Your task to perform on an android device: Show me popular videos on Youtube Image 0: 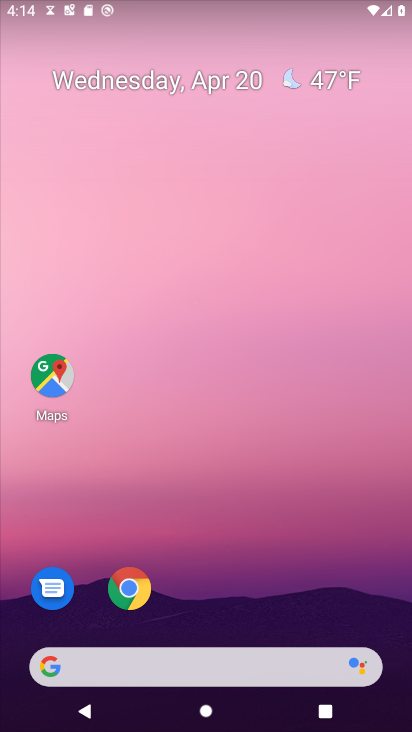
Step 0: drag from (321, 502) to (281, 189)
Your task to perform on an android device: Show me popular videos on Youtube Image 1: 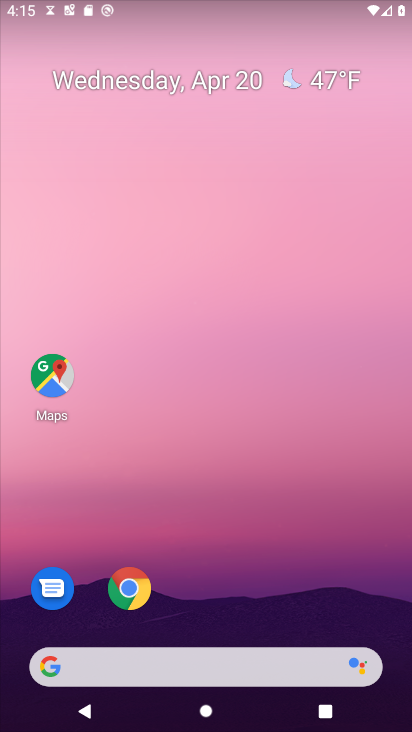
Step 1: drag from (256, 577) to (286, 57)
Your task to perform on an android device: Show me popular videos on Youtube Image 2: 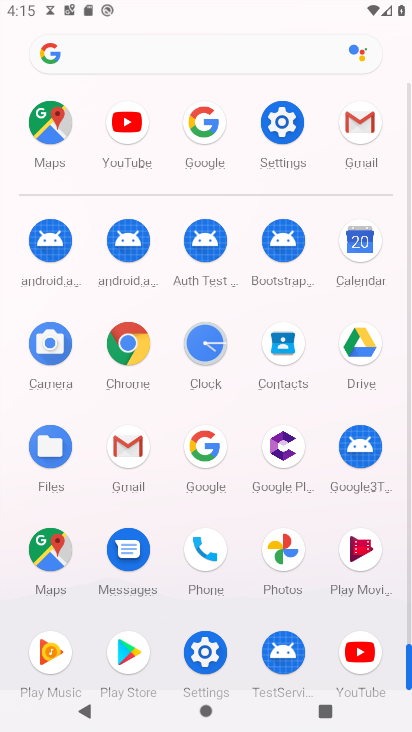
Step 2: click (361, 658)
Your task to perform on an android device: Show me popular videos on Youtube Image 3: 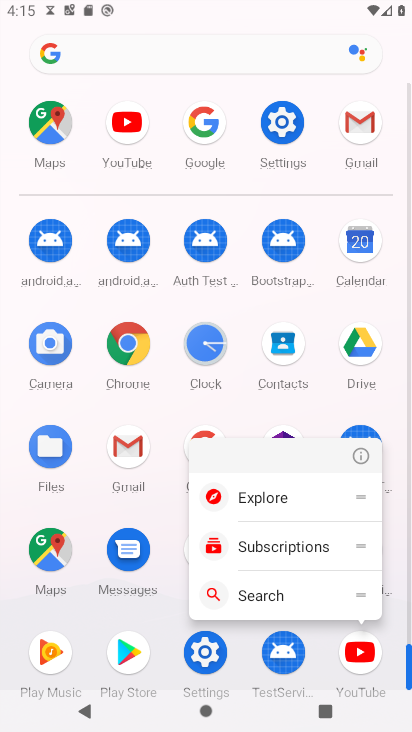
Step 3: click (362, 657)
Your task to perform on an android device: Show me popular videos on Youtube Image 4: 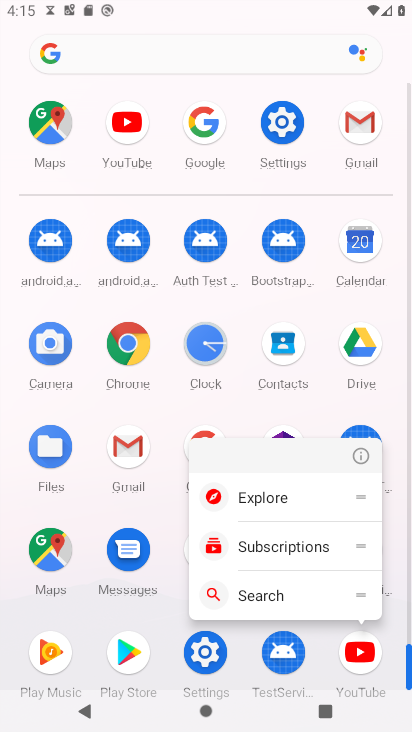
Step 4: click (362, 657)
Your task to perform on an android device: Show me popular videos on Youtube Image 5: 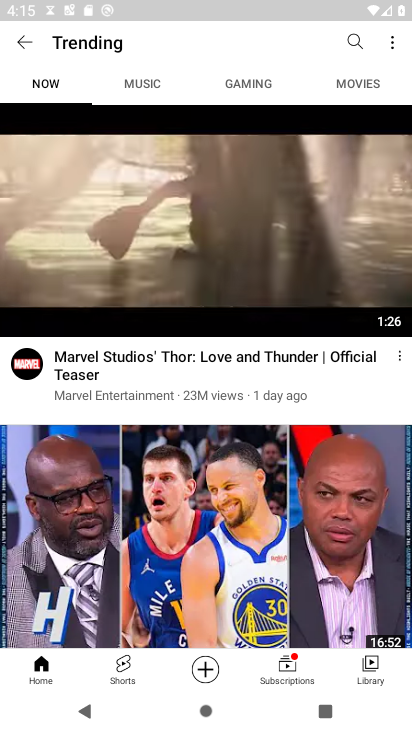
Step 5: task complete